Your task to perform on an android device: delete browsing data in the chrome app Image 0: 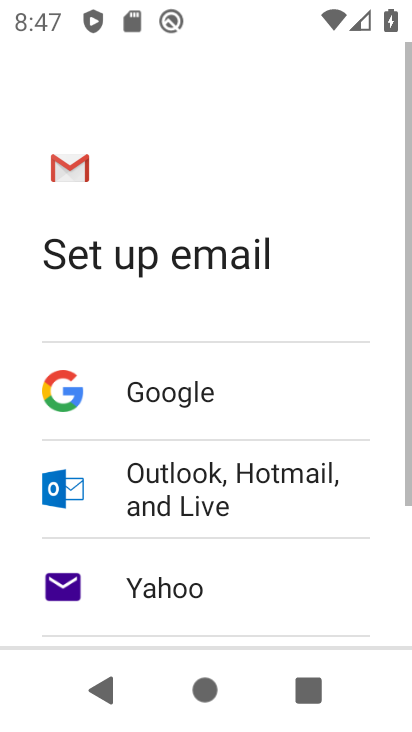
Step 0: press home button
Your task to perform on an android device: delete browsing data in the chrome app Image 1: 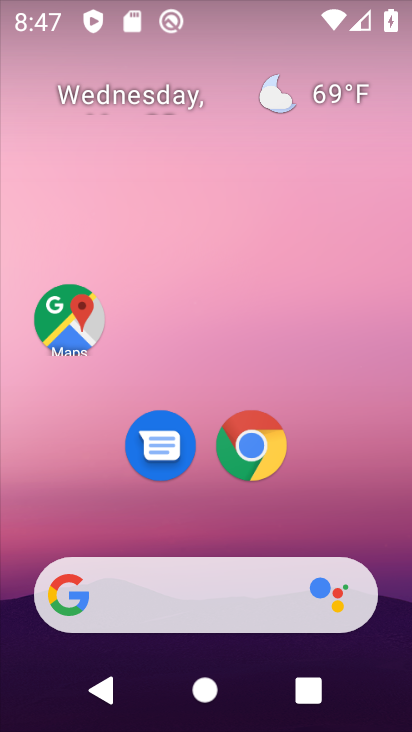
Step 1: click (245, 444)
Your task to perform on an android device: delete browsing data in the chrome app Image 2: 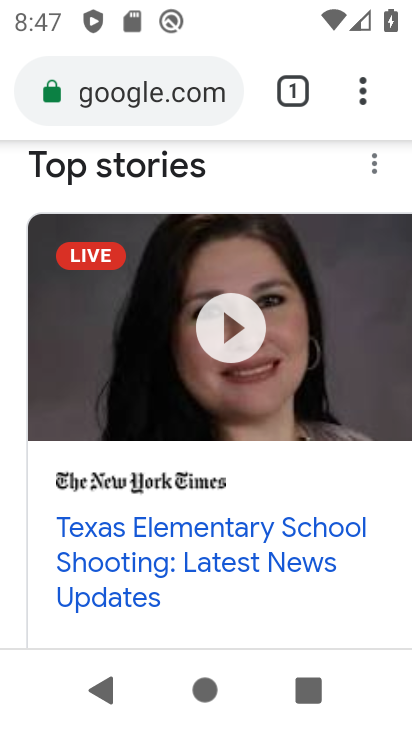
Step 2: drag from (363, 89) to (224, 475)
Your task to perform on an android device: delete browsing data in the chrome app Image 3: 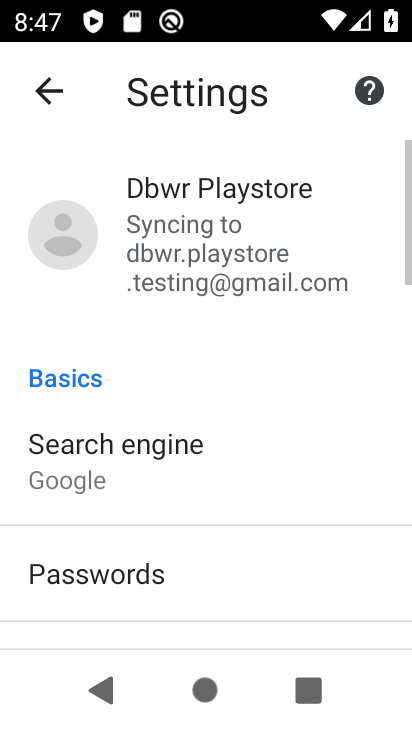
Step 3: drag from (309, 551) to (300, 225)
Your task to perform on an android device: delete browsing data in the chrome app Image 4: 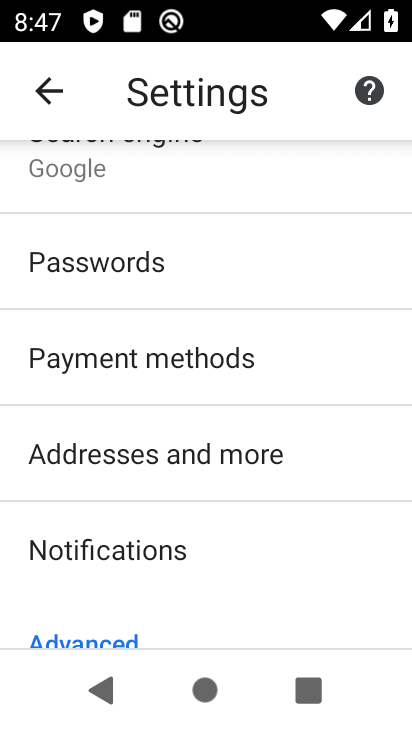
Step 4: drag from (305, 621) to (292, 230)
Your task to perform on an android device: delete browsing data in the chrome app Image 5: 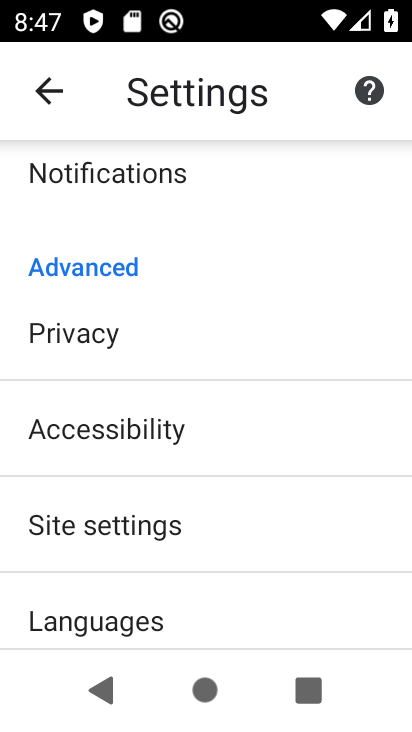
Step 5: click (104, 335)
Your task to perform on an android device: delete browsing data in the chrome app Image 6: 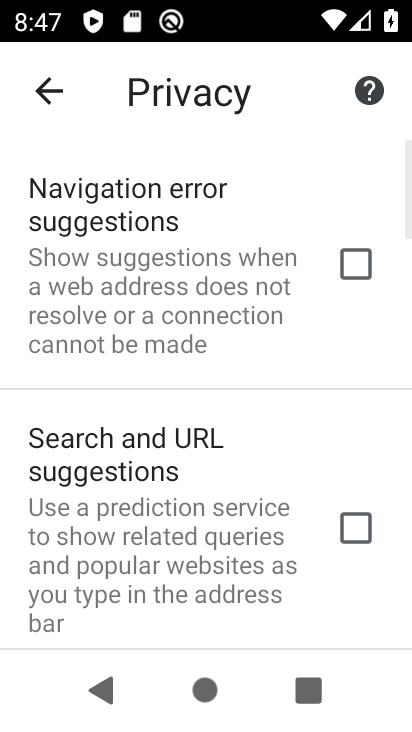
Step 6: drag from (302, 601) to (302, 236)
Your task to perform on an android device: delete browsing data in the chrome app Image 7: 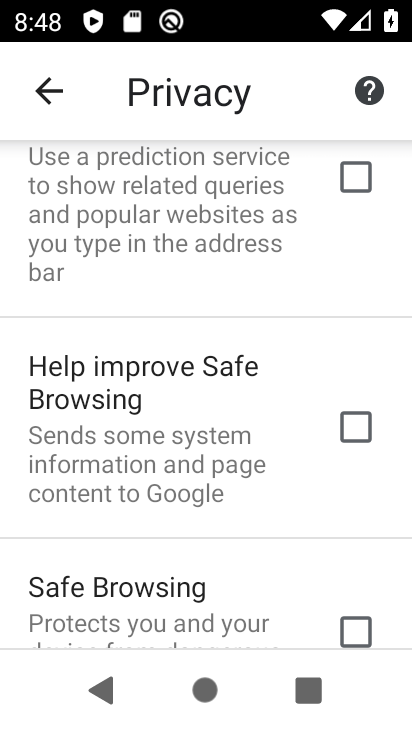
Step 7: drag from (292, 572) to (282, 227)
Your task to perform on an android device: delete browsing data in the chrome app Image 8: 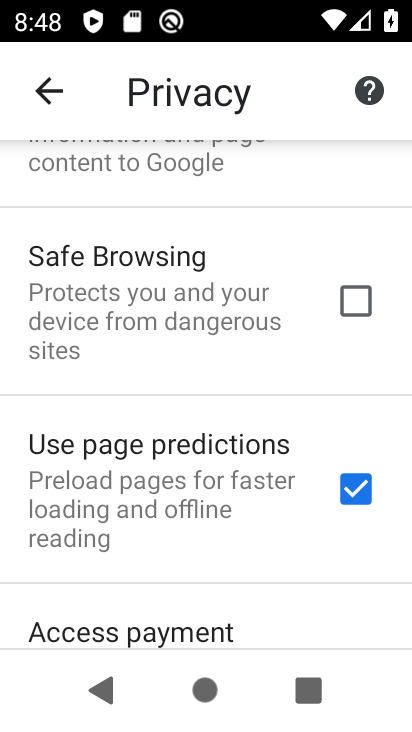
Step 8: drag from (276, 627) to (268, 235)
Your task to perform on an android device: delete browsing data in the chrome app Image 9: 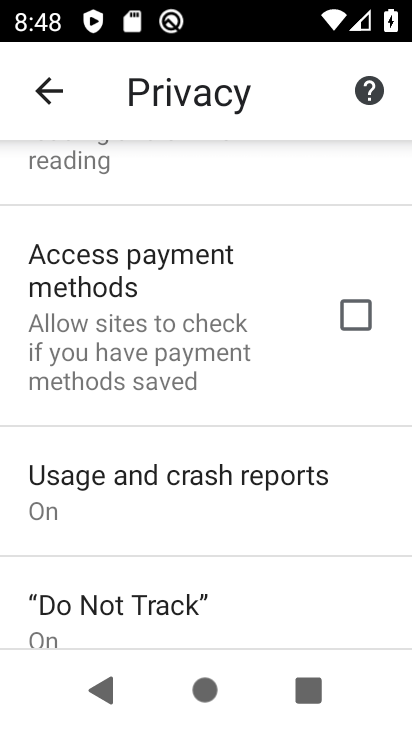
Step 9: drag from (295, 588) to (291, 384)
Your task to perform on an android device: delete browsing data in the chrome app Image 10: 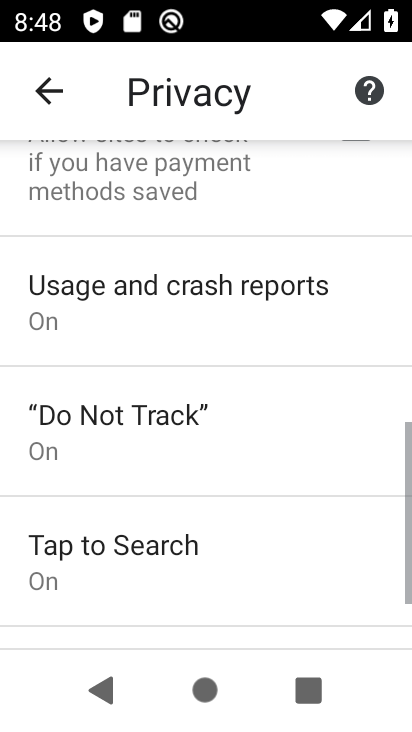
Step 10: click (291, 299)
Your task to perform on an android device: delete browsing data in the chrome app Image 11: 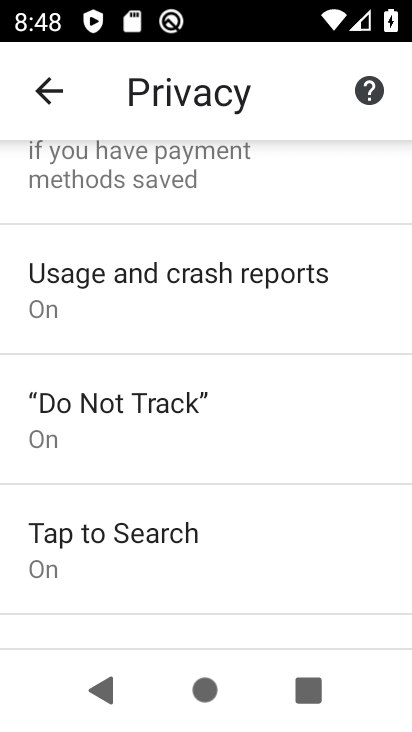
Step 11: drag from (288, 564) to (278, 244)
Your task to perform on an android device: delete browsing data in the chrome app Image 12: 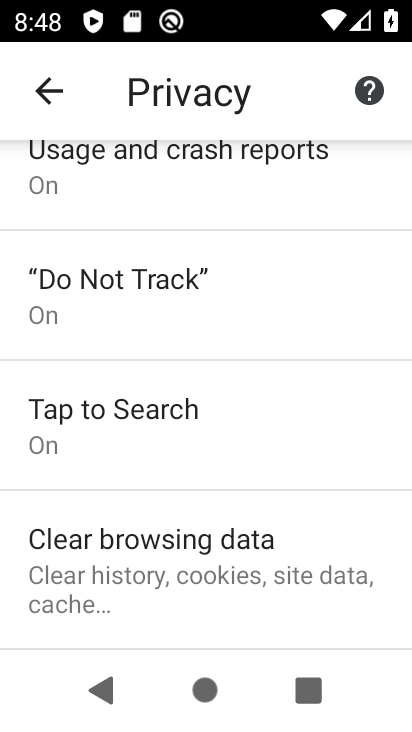
Step 12: click (127, 541)
Your task to perform on an android device: delete browsing data in the chrome app Image 13: 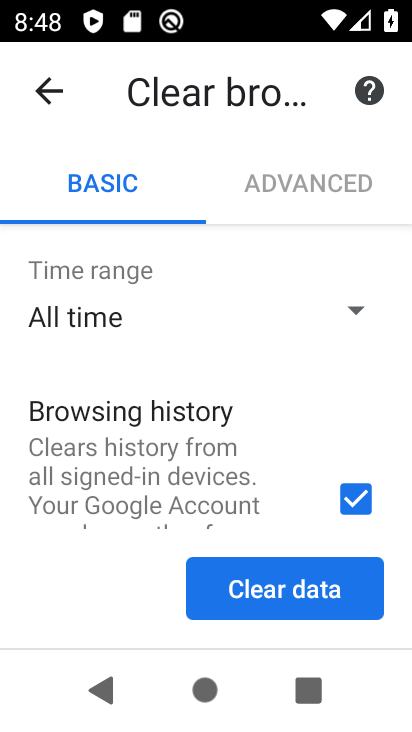
Step 13: click (276, 574)
Your task to perform on an android device: delete browsing data in the chrome app Image 14: 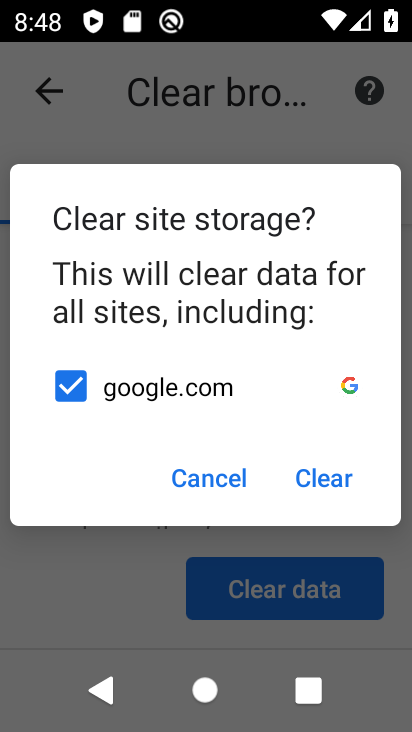
Step 14: click (335, 480)
Your task to perform on an android device: delete browsing data in the chrome app Image 15: 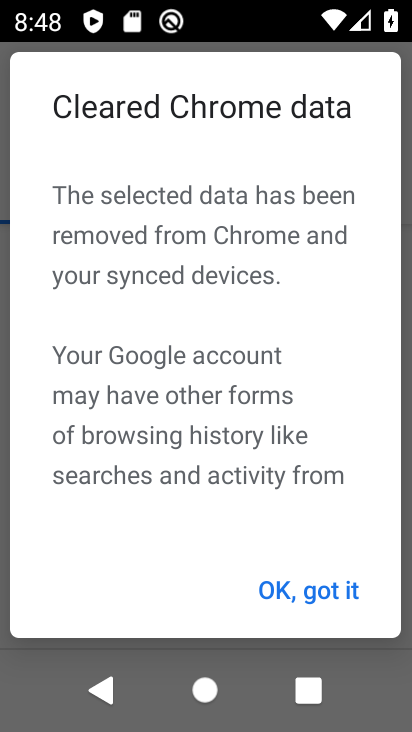
Step 15: click (292, 588)
Your task to perform on an android device: delete browsing data in the chrome app Image 16: 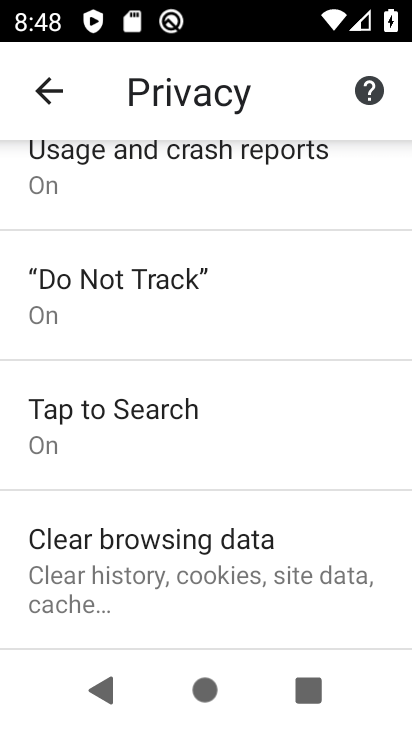
Step 16: task complete